Your task to perform on an android device: turn pop-ups on in chrome Image 0: 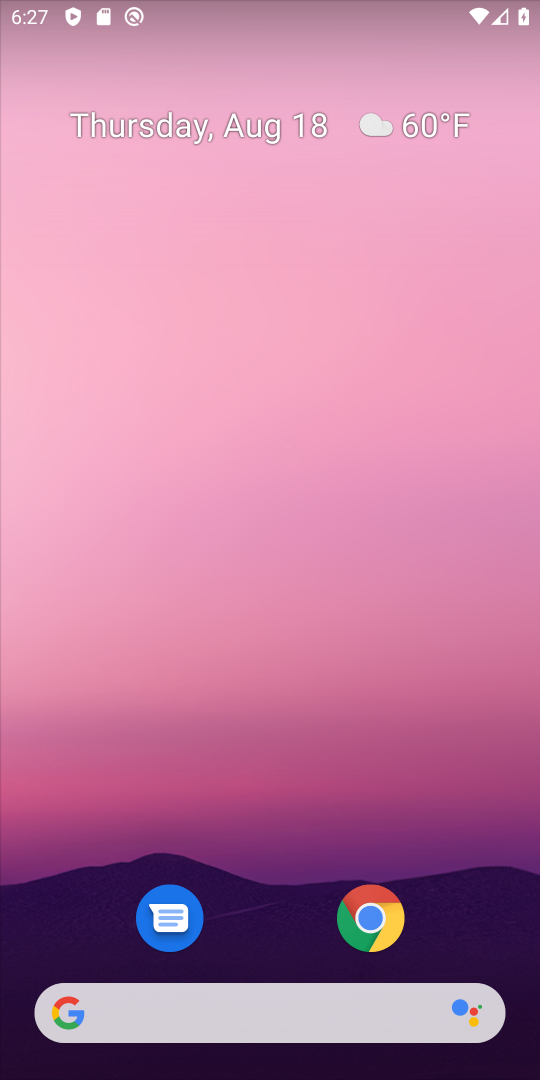
Step 0: press home button
Your task to perform on an android device: turn pop-ups on in chrome Image 1: 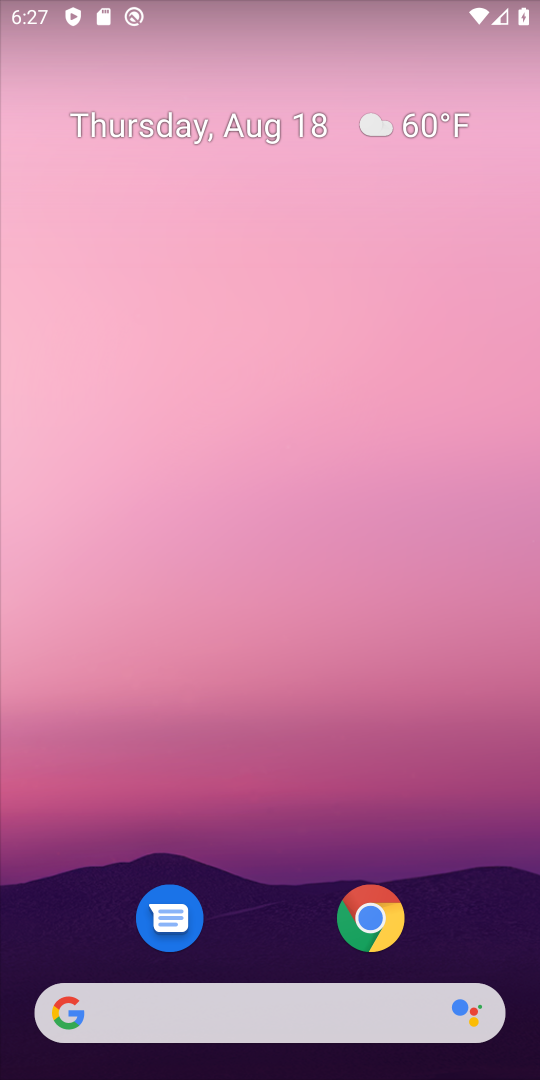
Step 1: click (361, 919)
Your task to perform on an android device: turn pop-ups on in chrome Image 2: 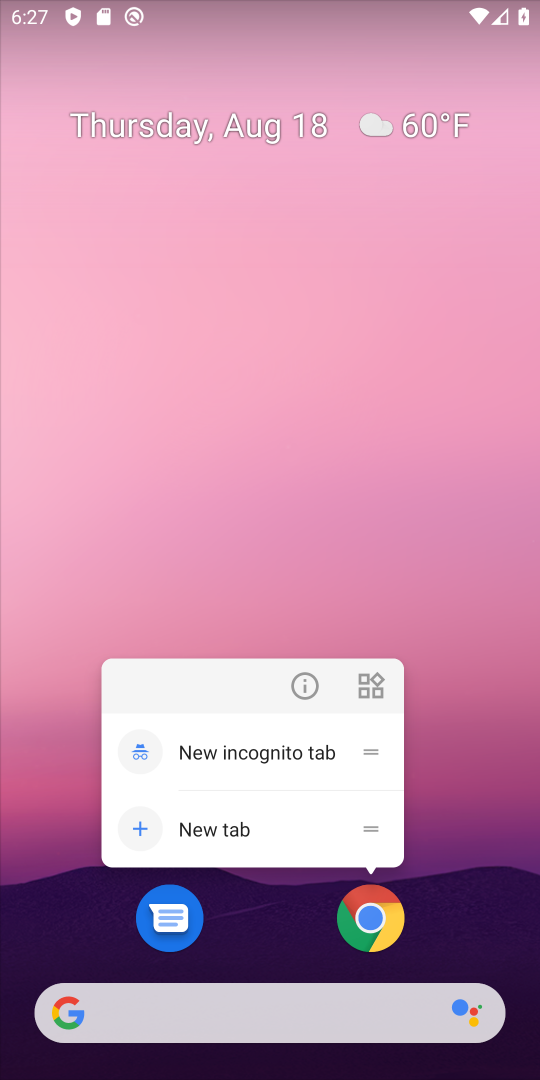
Step 2: click (370, 917)
Your task to perform on an android device: turn pop-ups on in chrome Image 3: 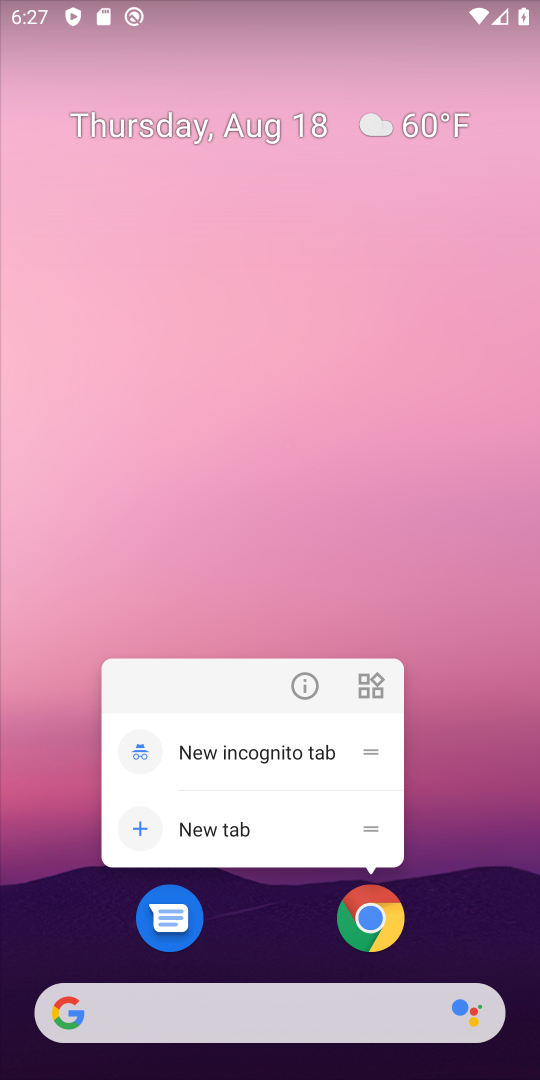
Step 3: click (370, 917)
Your task to perform on an android device: turn pop-ups on in chrome Image 4: 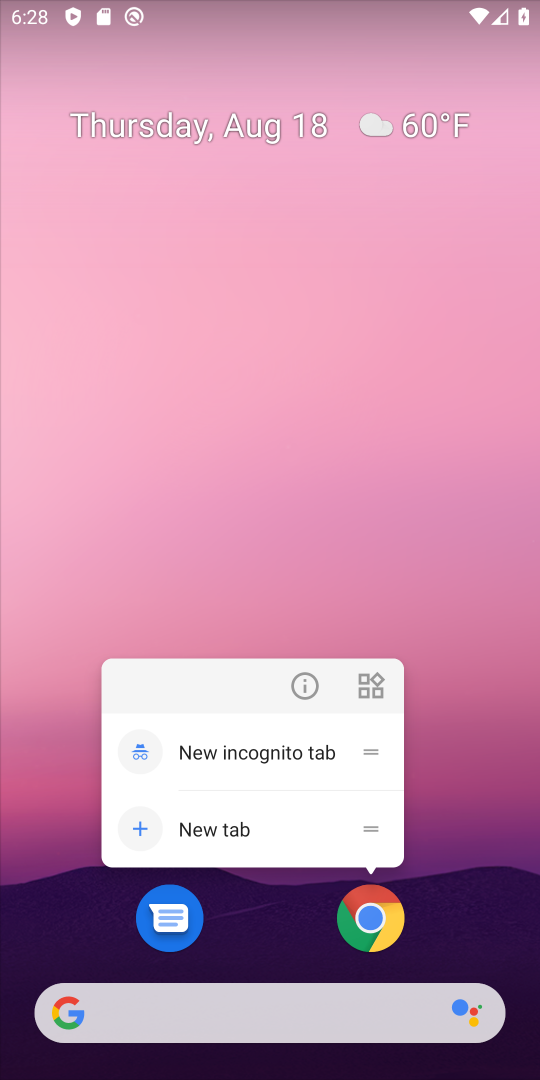
Step 4: click (390, 924)
Your task to perform on an android device: turn pop-ups on in chrome Image 5: 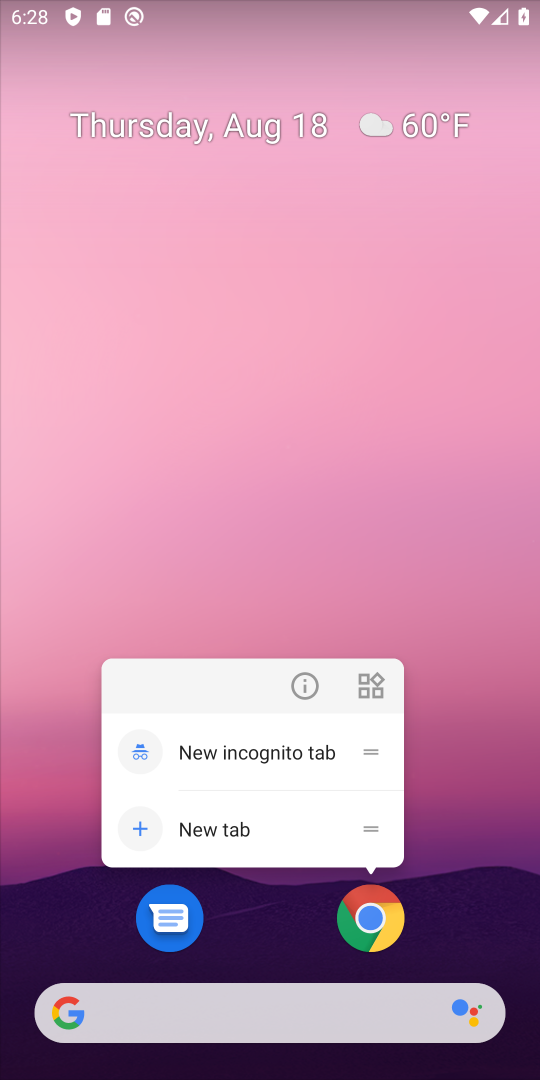
Step 5: click (391, 914)
Your task to perform on an android device: turn pop-ups on in chrome Image 6: 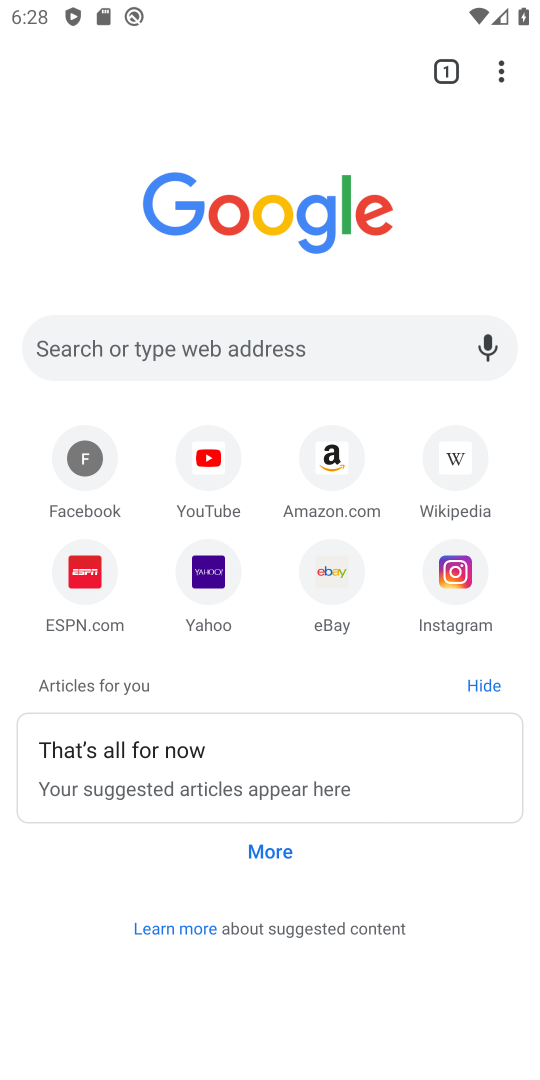
Step 6: drag from (499, 74) to (245, 597)
Your task to perform on an android device: turn pop-ups on in chrome Image 7: 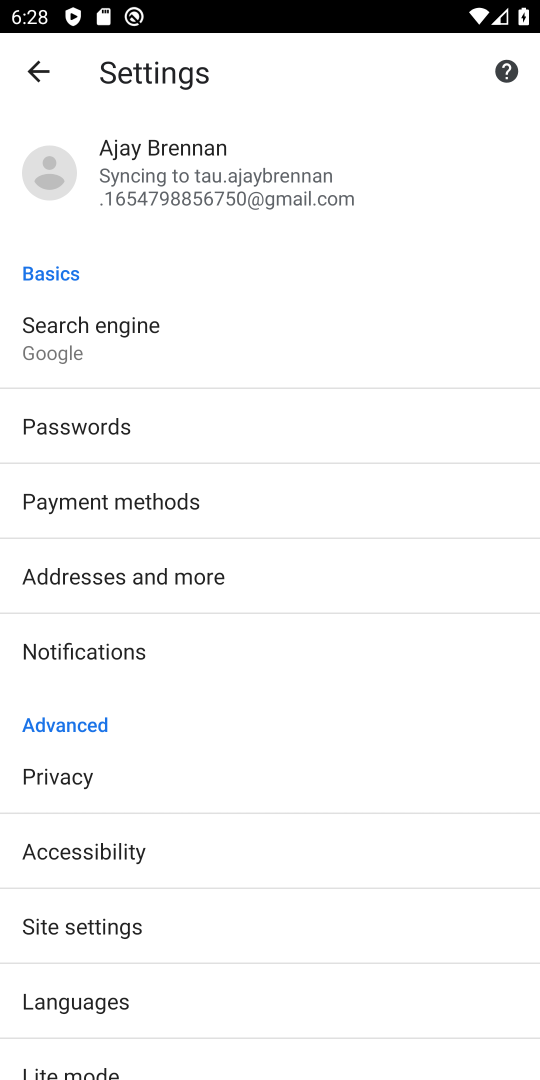
Step 7: drag from (204, 1014) to (122, 513)
Your task to perform on an android device: turn pop-ups on in chrome Image 8: 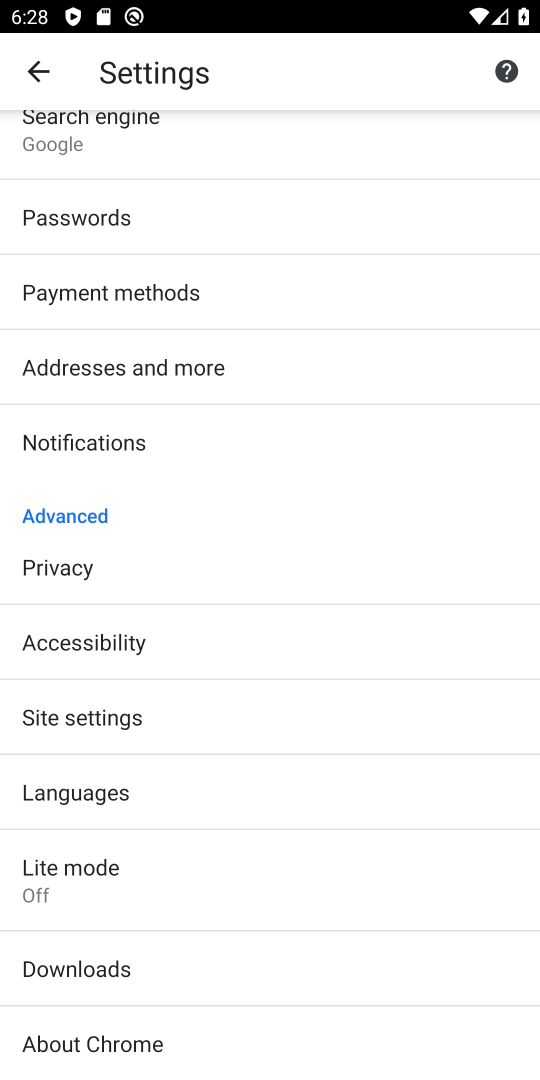
Step 8: click (71, 724)
Your task to perform on an android device: turn pop-ups on in chrome Image 9: 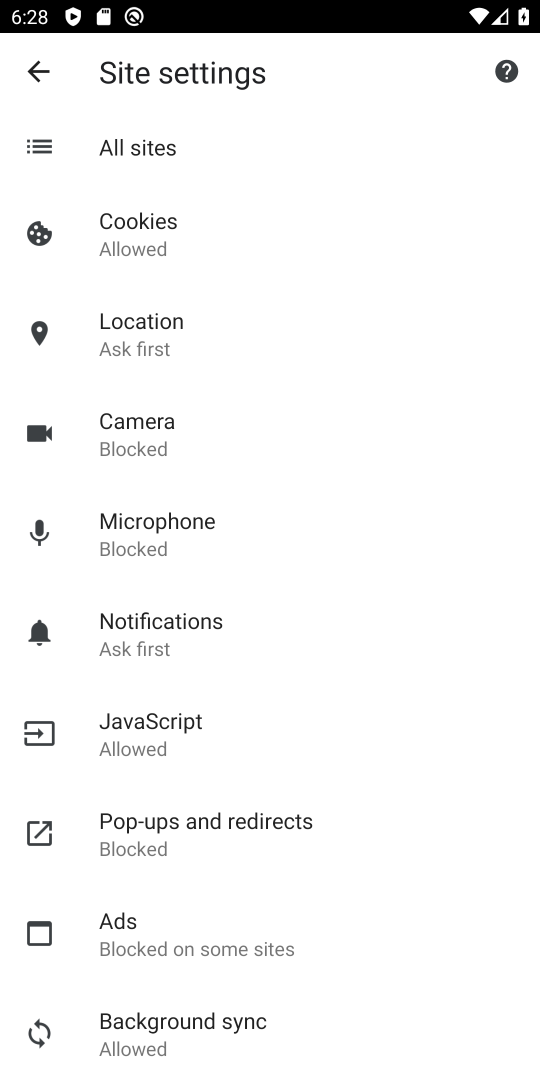
Step 9: click (132, 826)
Your task to perform on an android device: turn pop-ups on in chrome Image 10: 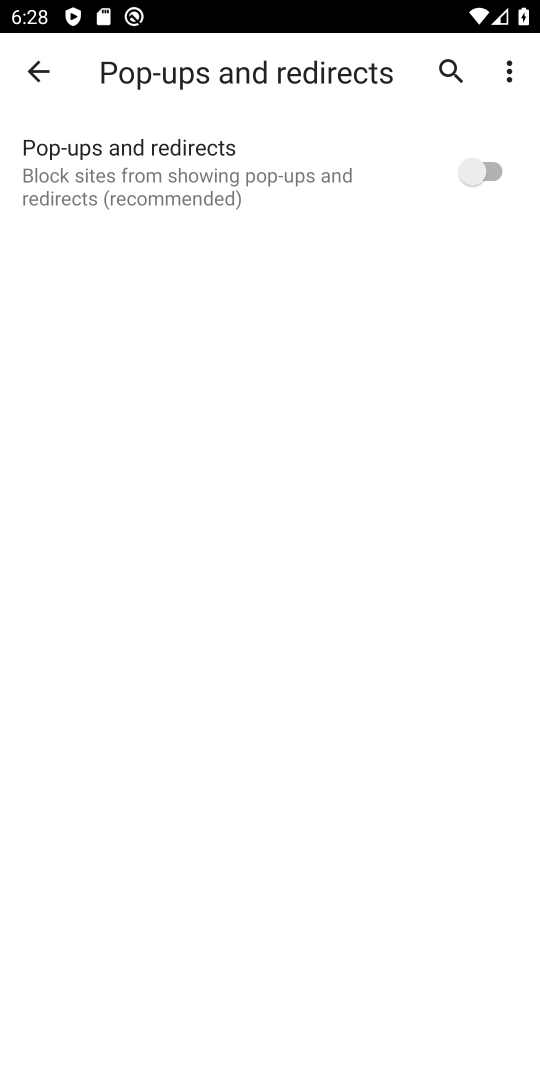
Step 10: click (481, 182)
Your task to perform on an android device: turn pop-ups on in chrome Image 11: 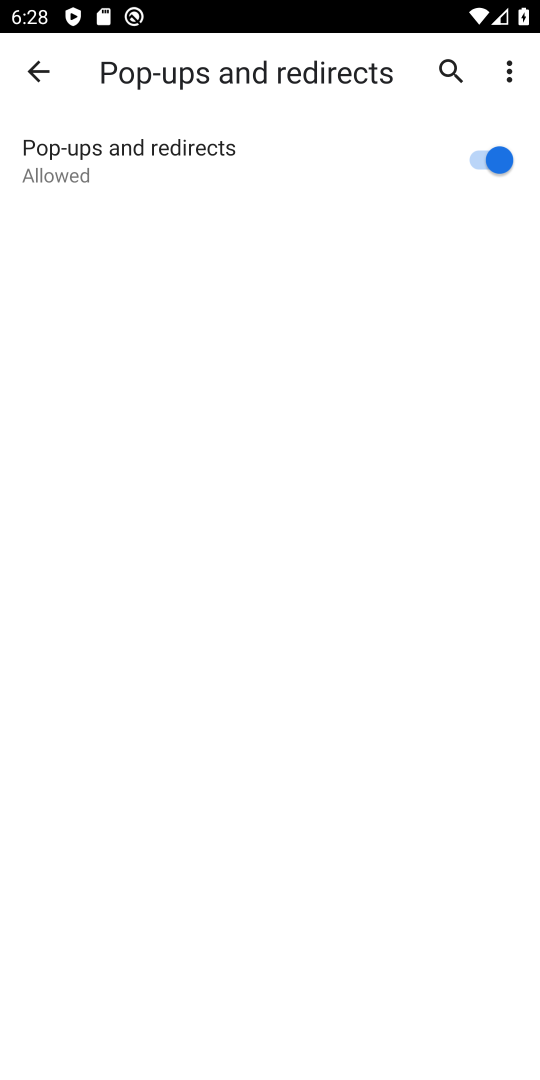
Step 11: task complete